Your task to perform on an android device: Search for a custom made wallet Image 0: 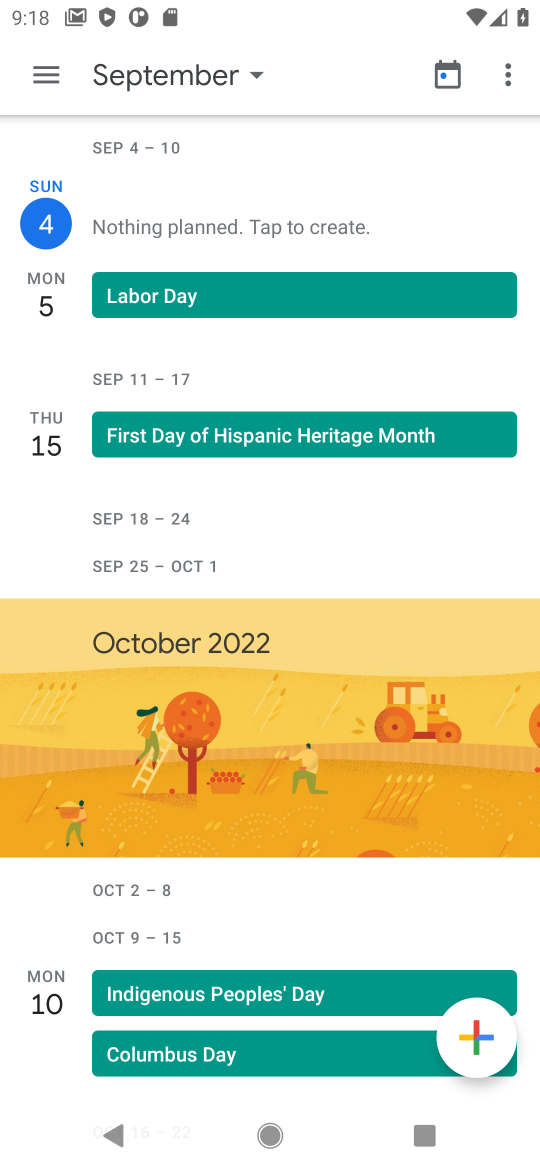
Step 0: press back button
Your task to perform on an android device: Search for a custom made wallet Image 1: 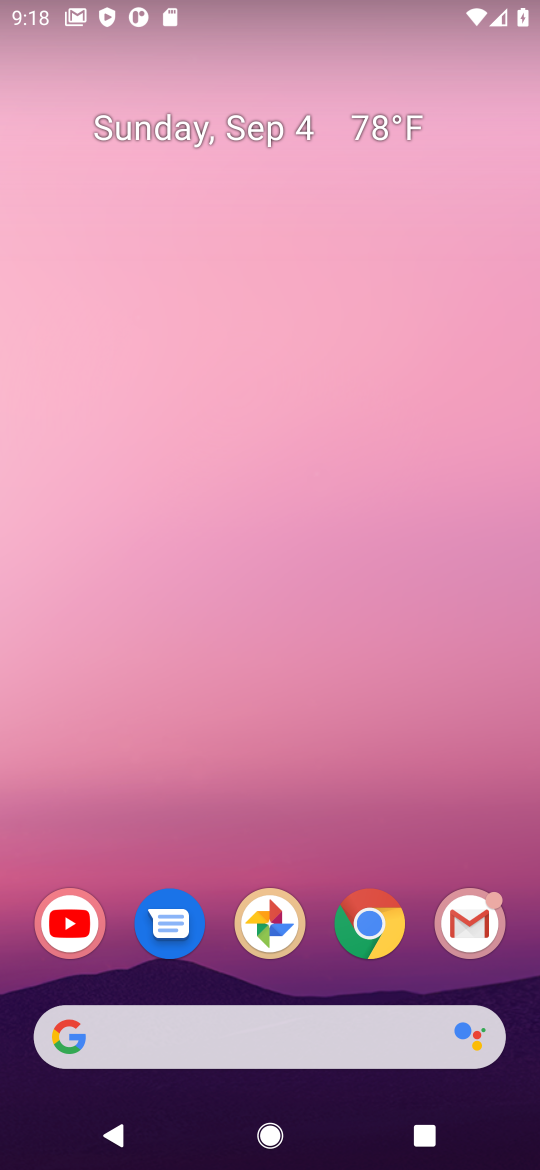
Step 1: click (153, 1020)
Your task to perform on an android device: Search for a custom made wallet Image 2: 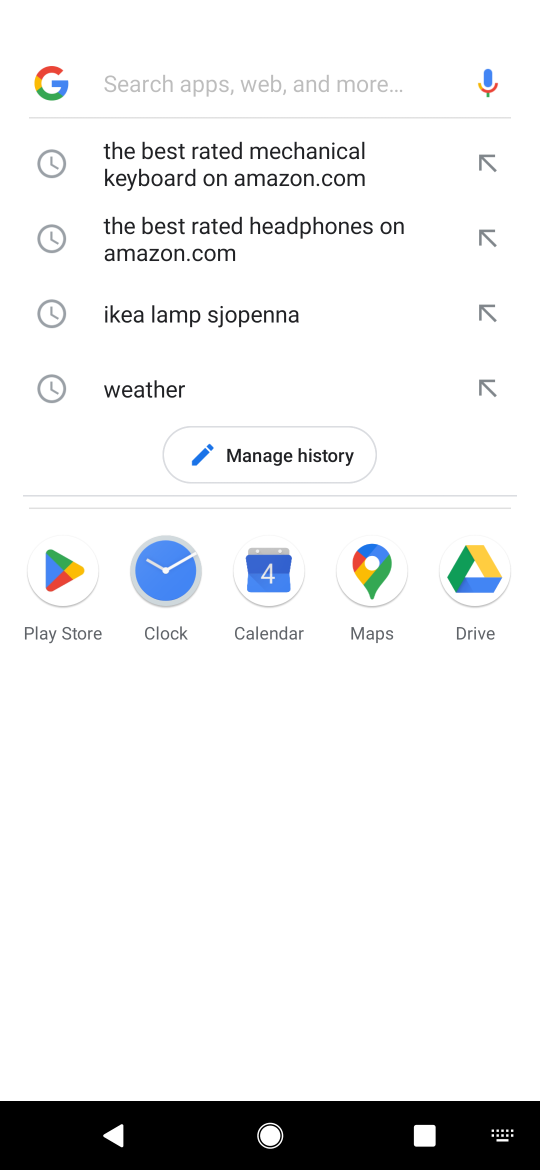
Step 2: press back button
Your task to perform on an android device: Search for a custom made wallet Image 3: 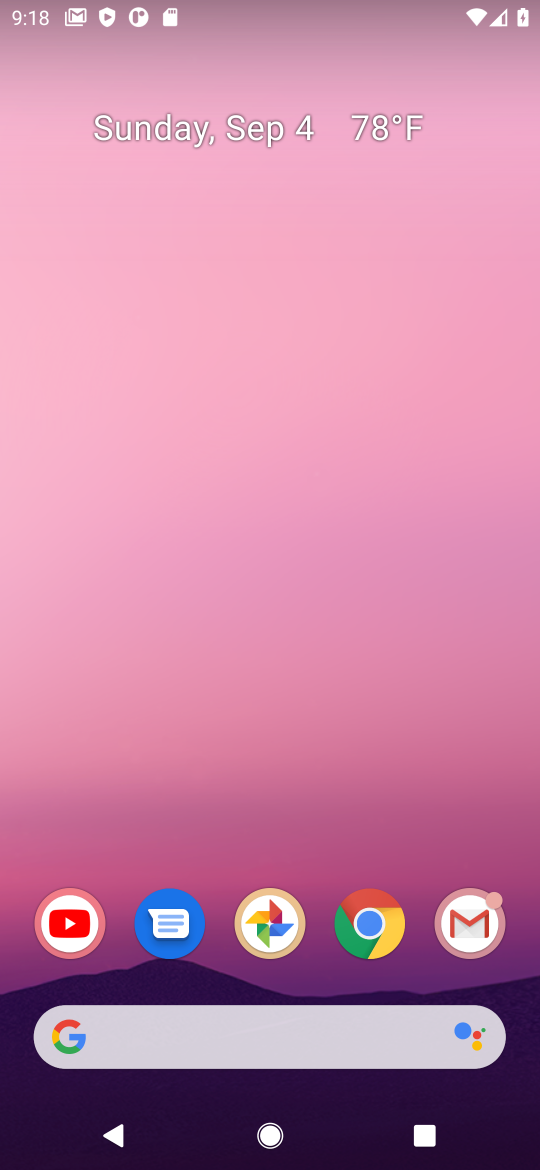
Step 3: click (391, 947)
Your task to perform on an android device: Search for a custom made wallet Image 4: 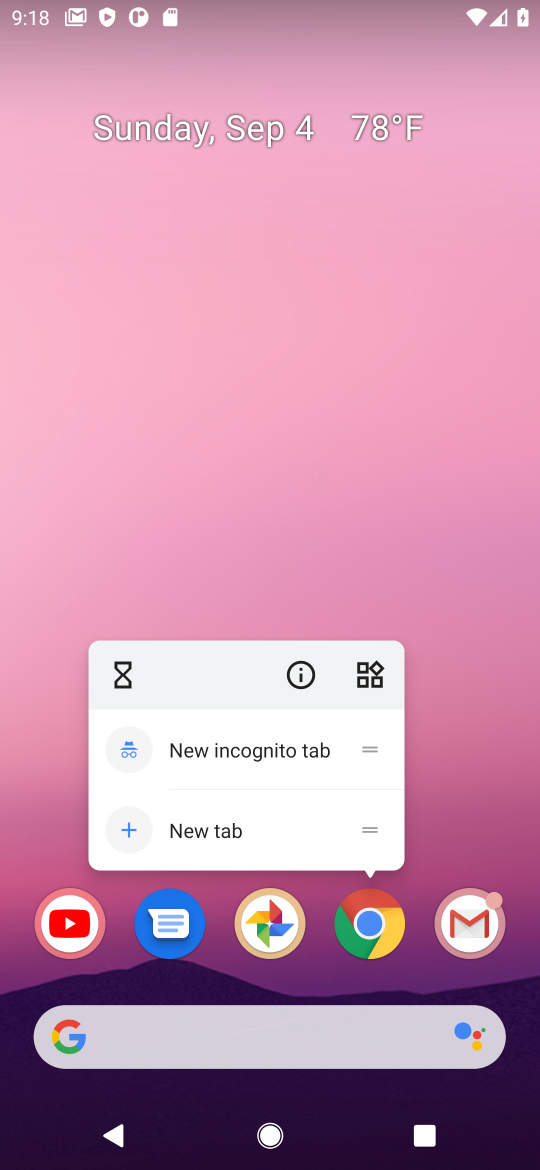
Step 4: click (380, 936)
Your task to perform on an android device: Search for a custom made wallet Image 5: 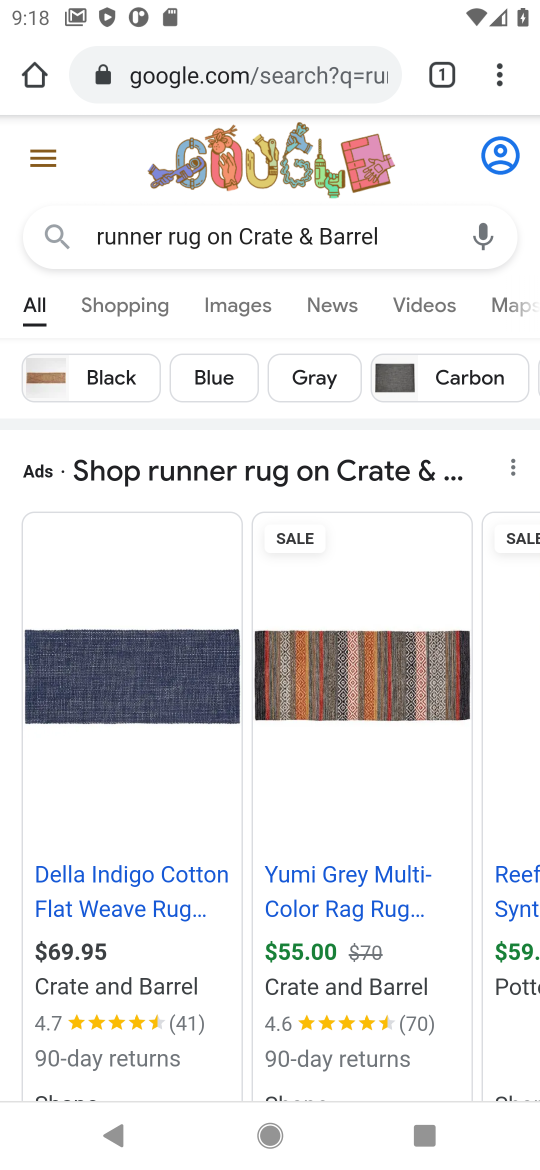
Step 5: click (247, 92)
Your task to perform on an android device: Search for a custom made wallet Image 6: 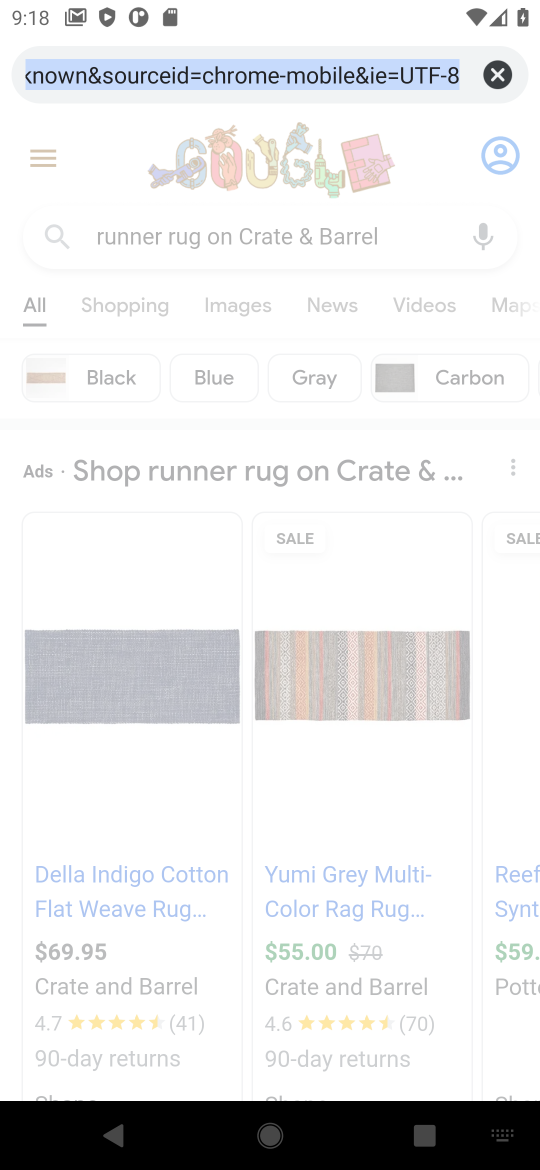
Step 6: click (498, 76)
Your task to perform on an android device: Search for a custom made wallet Image 7: 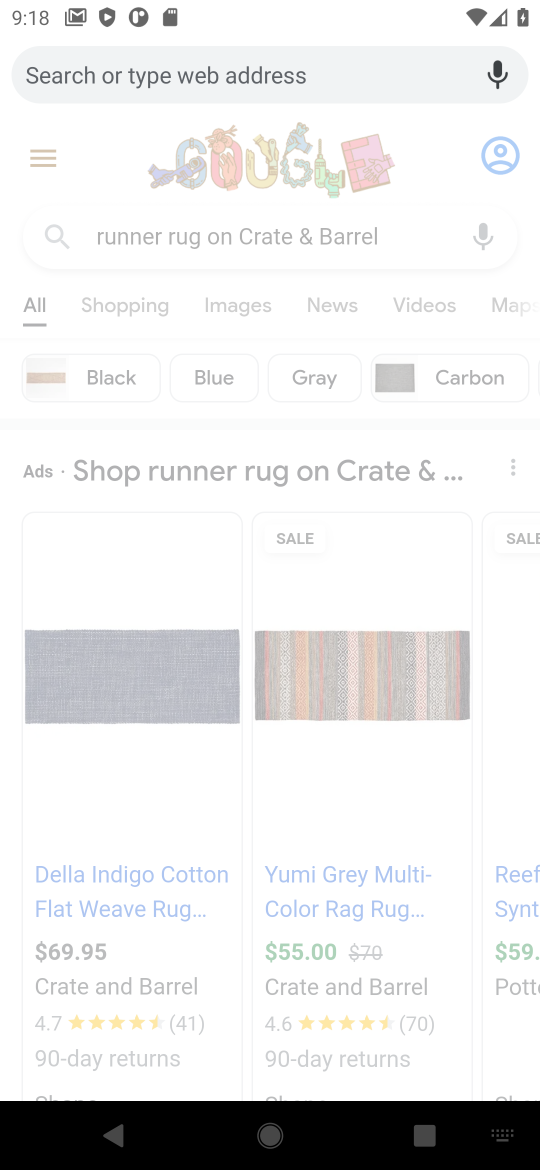
Step 7: type "custom made wallet"
Your task to perform on an android device: Search for a custom made wallet Image 8: 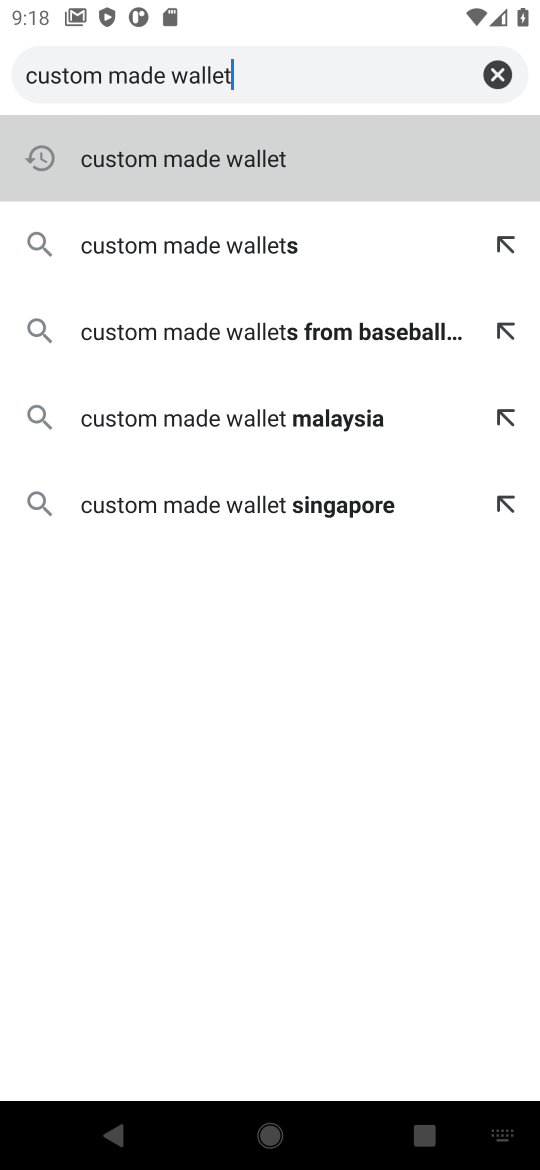
Step 8: click (222, 164)
Your task to perform on an android device: Search for a custom made wallet Image 9: 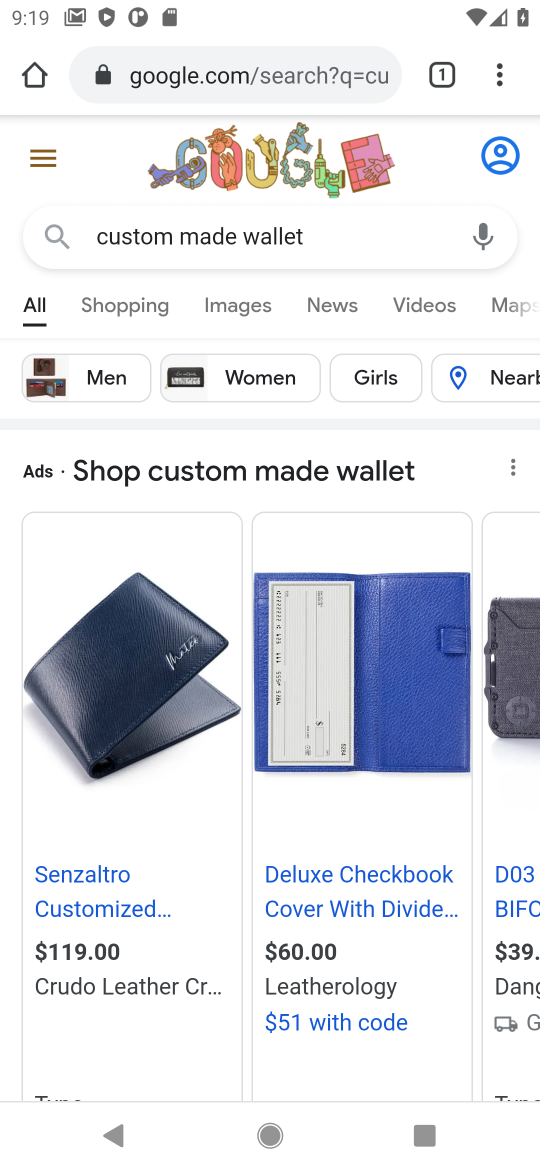
Step 9: click (242, 385)
Your task to perform on an android device: Search for a custom made wallet Image 10: 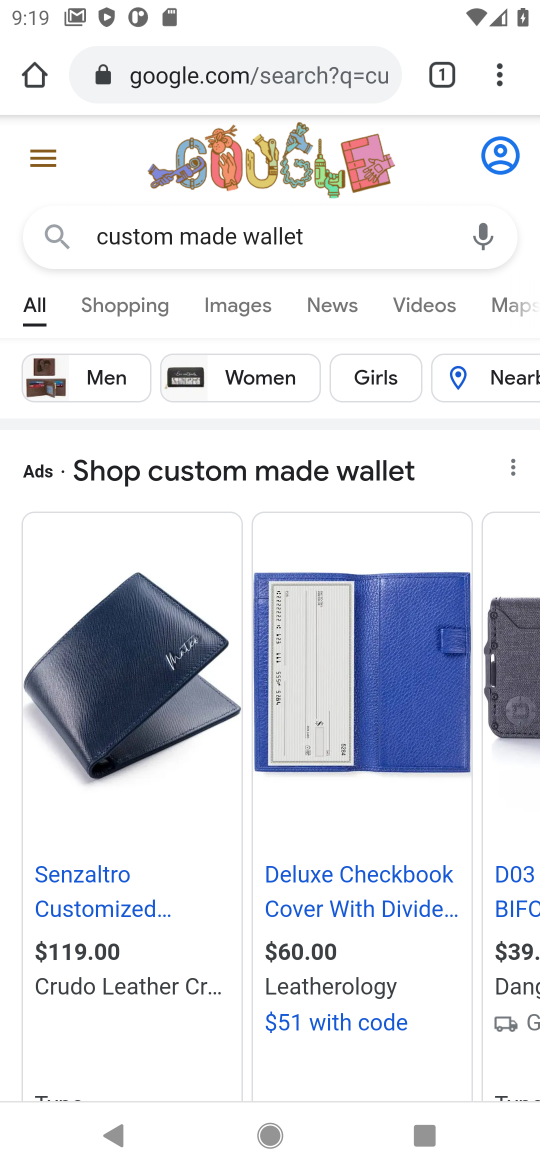
Step 10: task complete